Your task to perform on an android device: turn on javascript in the chrome app Image 0: 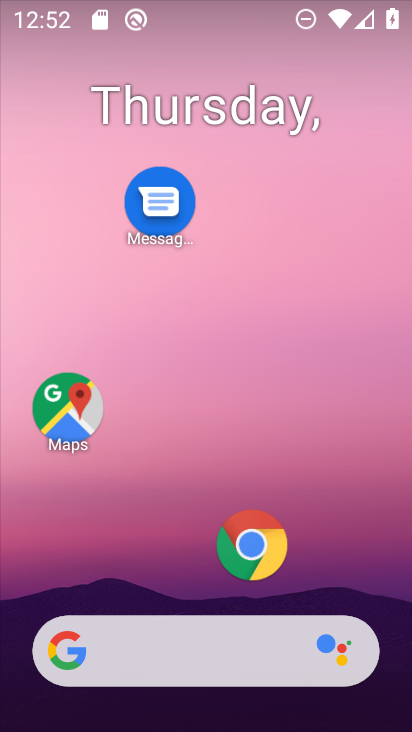
Step 0: click (252, 551)
Your task to perform on an android device: turn on javascript in the chrome app Image 1: 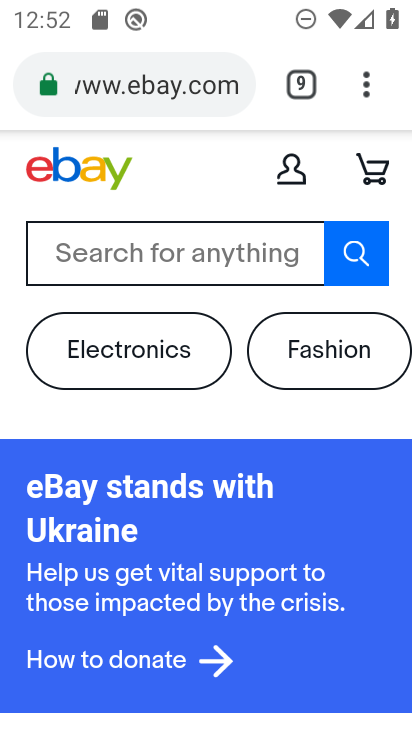
Step 1: click (363, 85)
Your task to perform on an android device: turn on javascript in the chrome app Image 2: 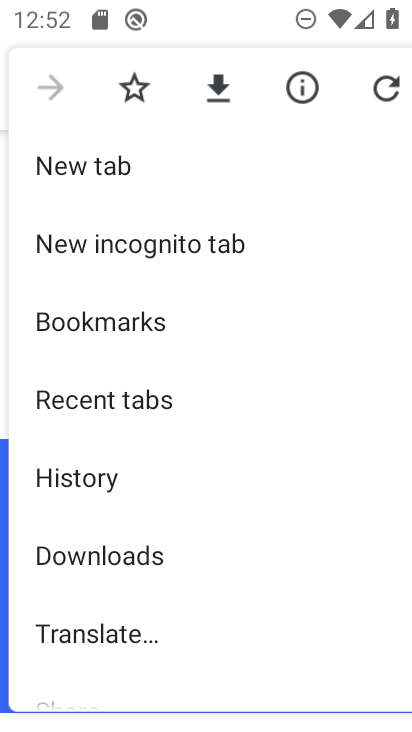
Step 2: drag from (275, 534) to (286, 174)
Your task to perform on an android device: turn on javascript in the chrome app Image 3: 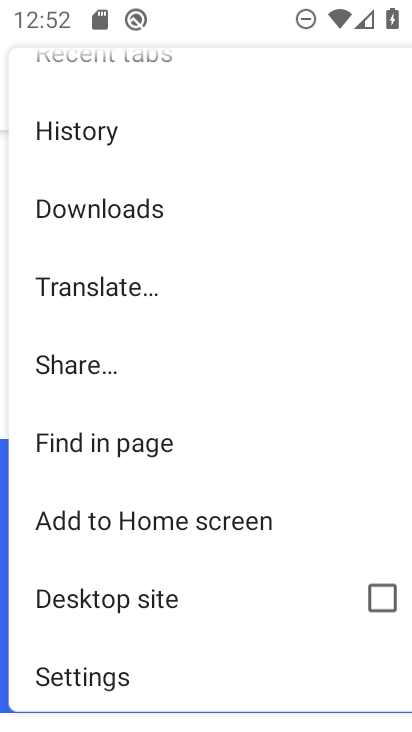
Step 3: click (158, 667)
Your task to perform on an android device: turn on javascript in the chrome app Image 4: 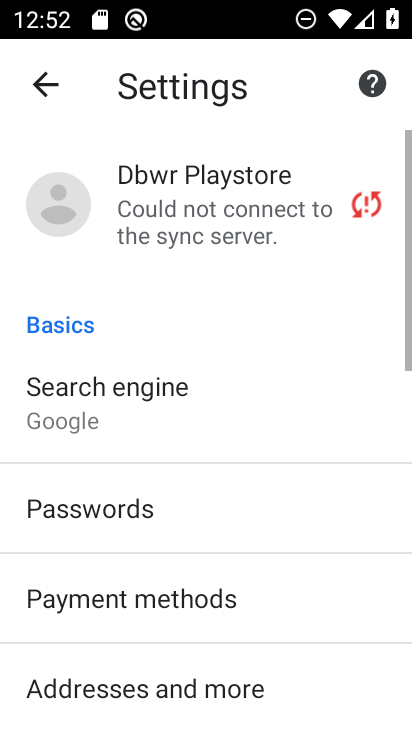
Step 4: drag from (166, 574) to (213, 255)
Your task to perform on an android device: turn on javascript in the chrome app Image 5: 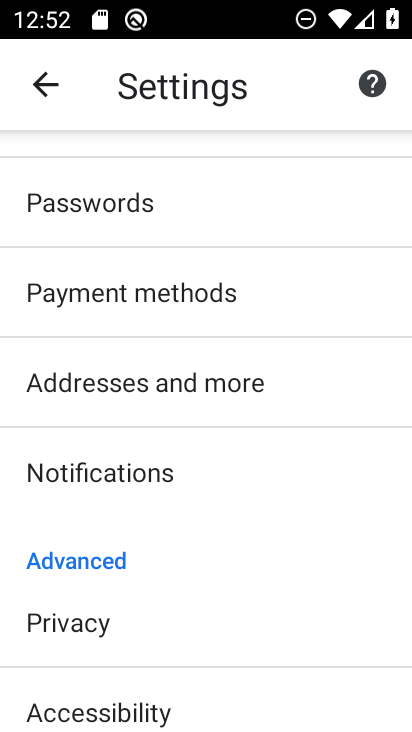
Step 5: drag from (244, 634) to (295, 319)
Your task to perform on an android device: turn on javascript in the chrome app Image 6: 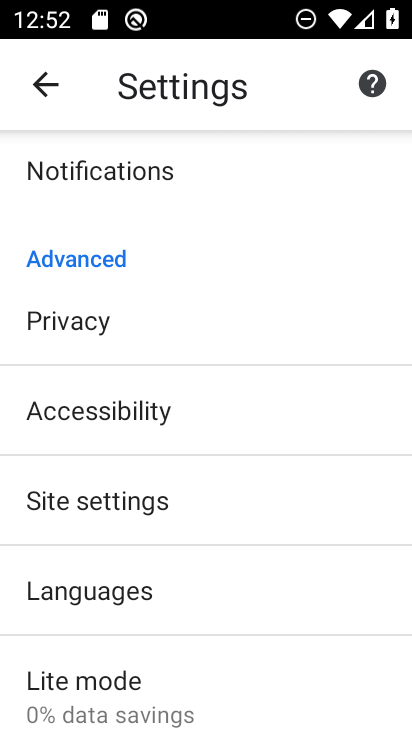
Step 6: click (246, 504)
Your task to perform on an android device: turn on javascript in the chrome app Image 7: 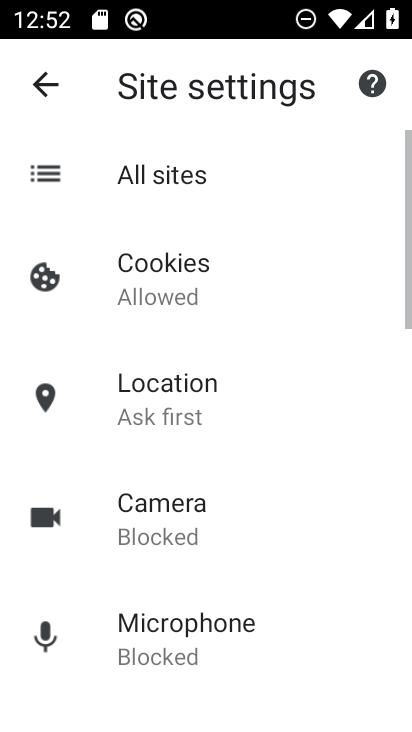
Step 7: drag from (244, 628) to (245, 330)
Your task to perform on an android device: turn on javascript in the chrome app Image 8: 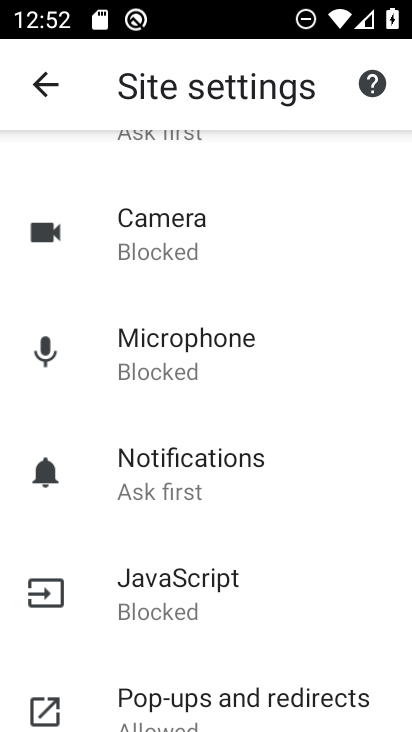
Step 8: click (232, 595)
Your task to perform on an android device: turn on javascript in the chrome app Image 9: 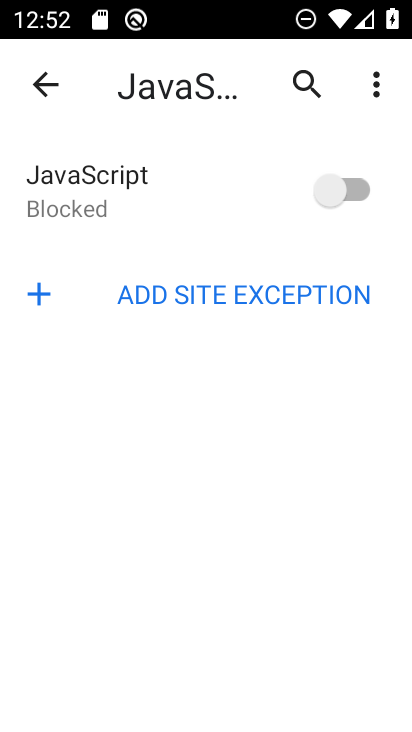
Step 9: click (363, 188)
Your task to perform on an android device: turn on javascript in the chrome app Image 10: 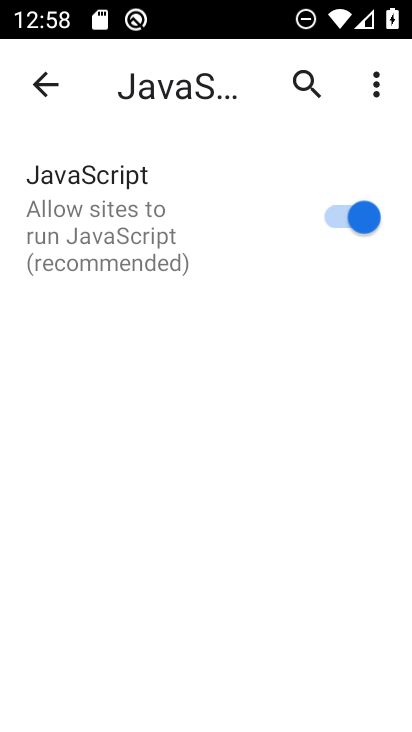
Step 10: task complete